Your task to perform on an android device: Go to Google Image 0: 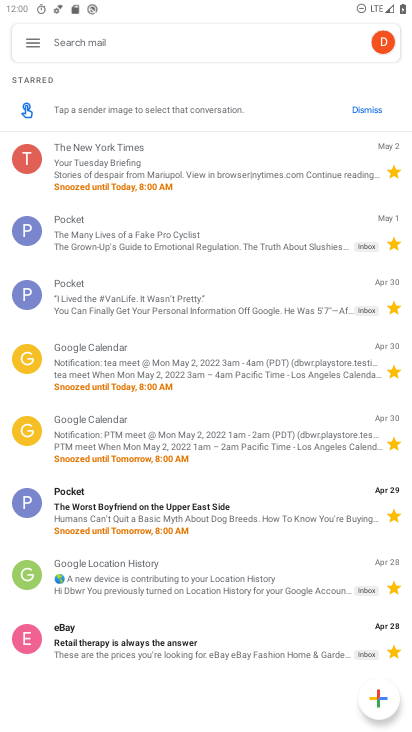
Step 0: press home button
Your task to perform on an android device: Go to Google Image 1: 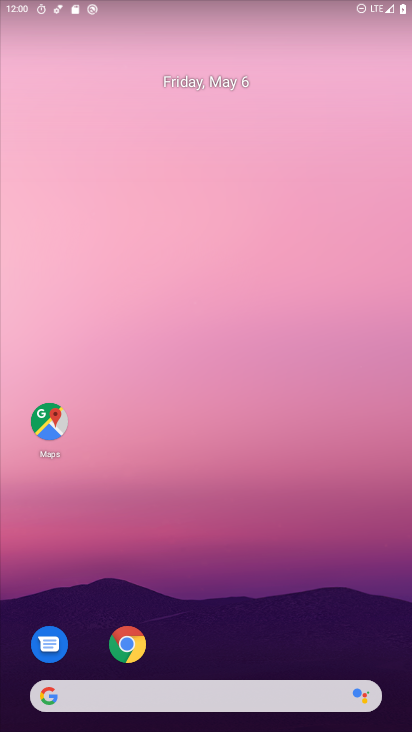
Step 1: drag from (376, 485) to (313, 92)
Your task to perform on an android device: Go to Google Image 2: 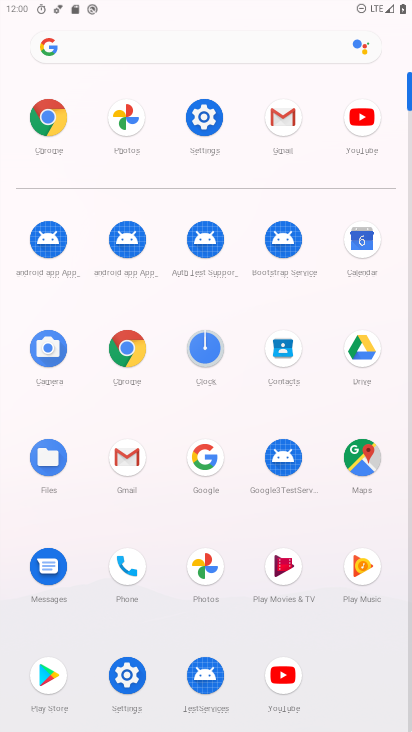
Step 2: click (203, 447)
Your task to perform on an android device: Go to Google Image 3: 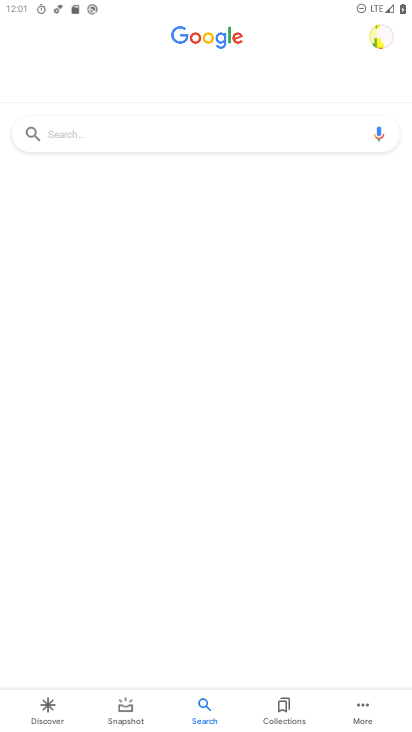
Step 3: click (191, 136)
Your task to perform on an android device: Go to Google Image 4: 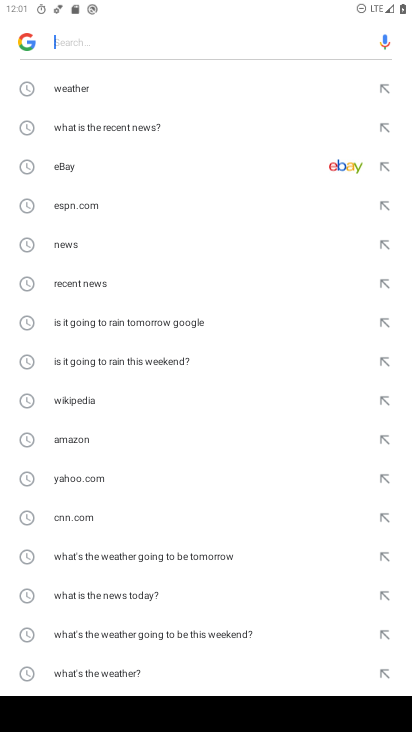
Step 4: task complete